Your task to perform on an android device: turn on javascript in the chrome app Image 0: 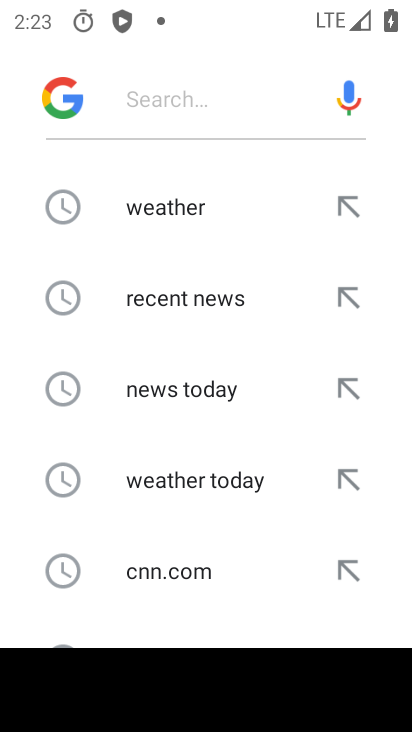
Step 0: press home button
Your task to perform on an android device: turn on javascript in the chrome app Image 1: 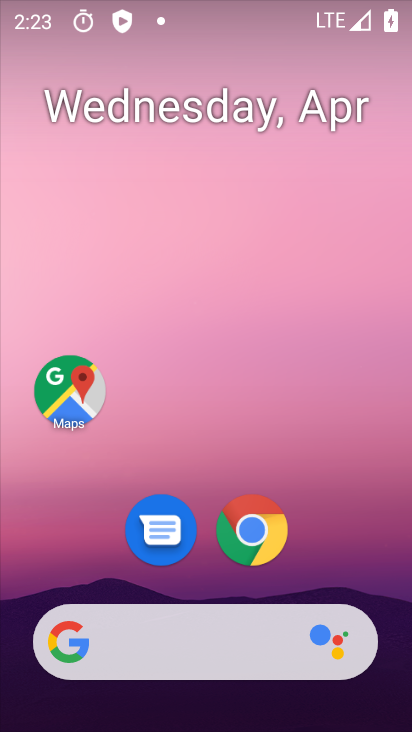
Step 1: drag from (330, 449) to (342, 137)
Your task to perform on an android device: turn on javascript in the chrome app Image 2: 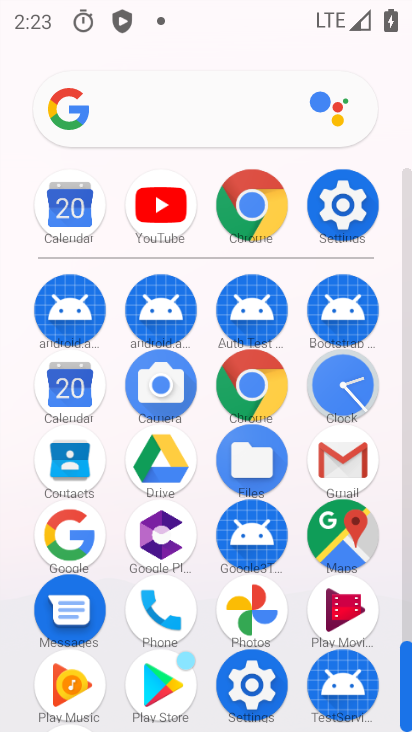
Step 2: click (246, 403)
Your task to perform on an android device: turn on javascript in the chrome app Image 3: 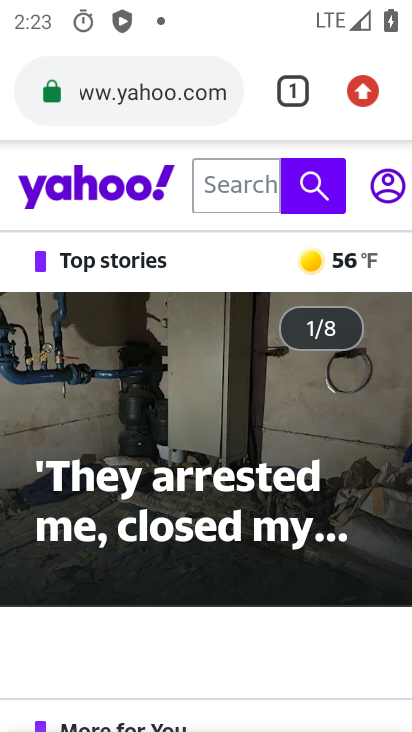
Step 3: drag from (391, 85) to (117, 551)
Your task to perform on an android device: turn on javascript in the chrome app Image 4: 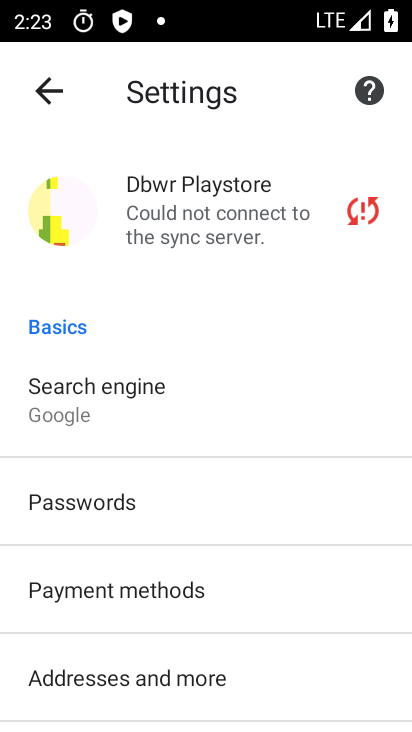
Step 4: drag from (320, 666) to (371, 235)
Your task to perform on an android device: turn on javascript in the chrome app Image 5: 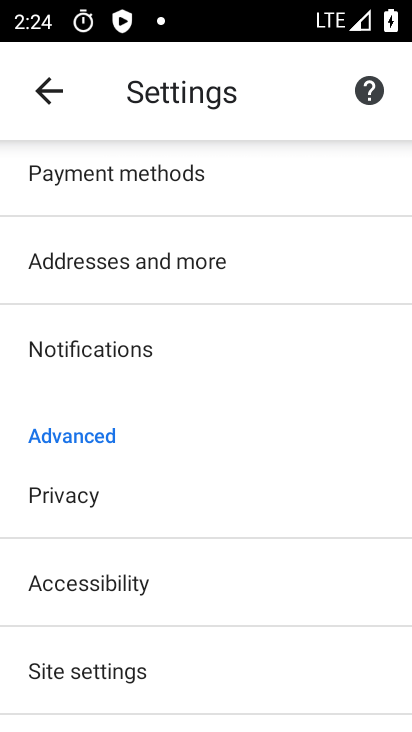
Step 5: drag from (254, 612) to (325, 314)
Your task to perform on an android device: turn on javascript in the chrome app Image 6: 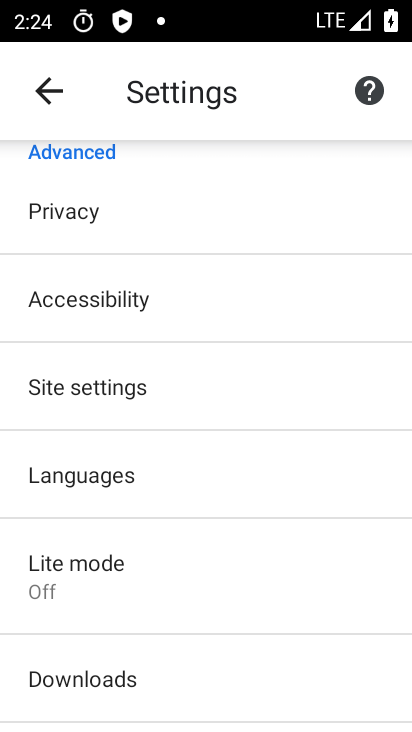
Step 6: click (125, 389)
Your task to perform on an android device: turn on javascript in the chrome app Image 7: 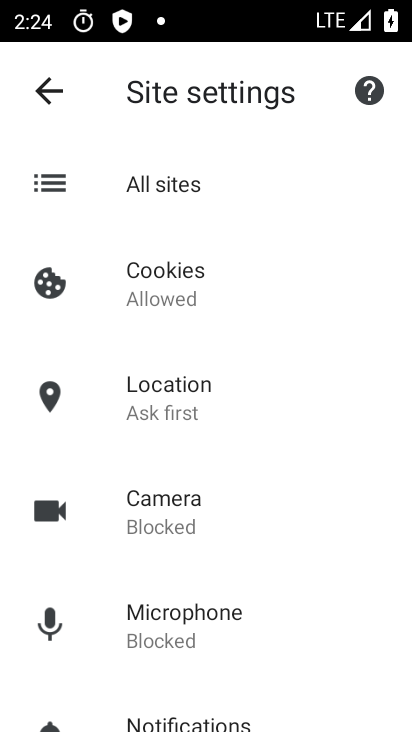
Step 7: drag from (295, 626) to (322, 154)
Your task to perform on an android device: turn on javascript in the chrome app Image 8: 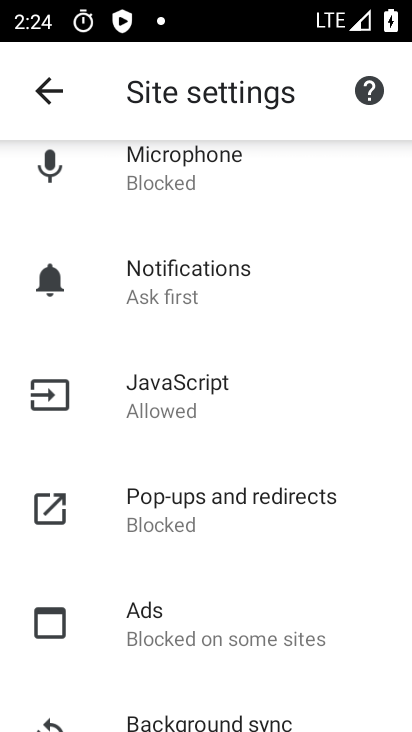
Step 8: click (199, 398)
Your task to perform on an android device: turn on javascript in the chrome app Image 9: 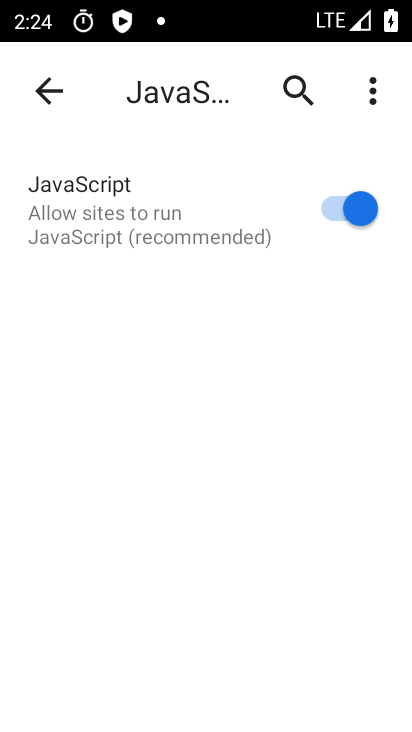
Step 9: task complete